Your task to perform on an android device: Open Google Maps and go to "Timeline" Image 0: 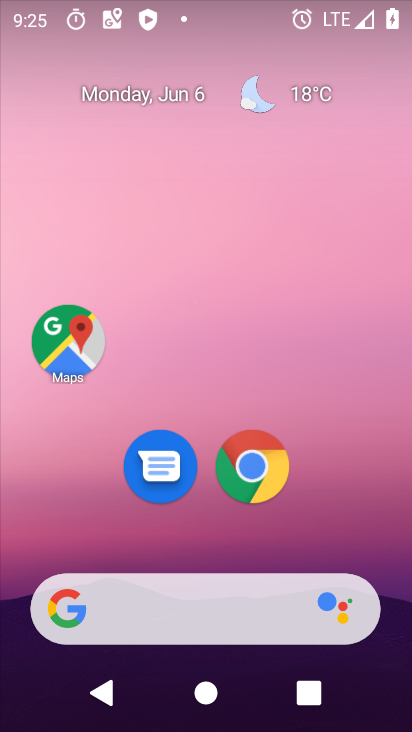
Step 0: drag from (183, 503) to (193, 60)
Your task to perform on an android device: Open Google Maps and go to "Timeline" Image 1: 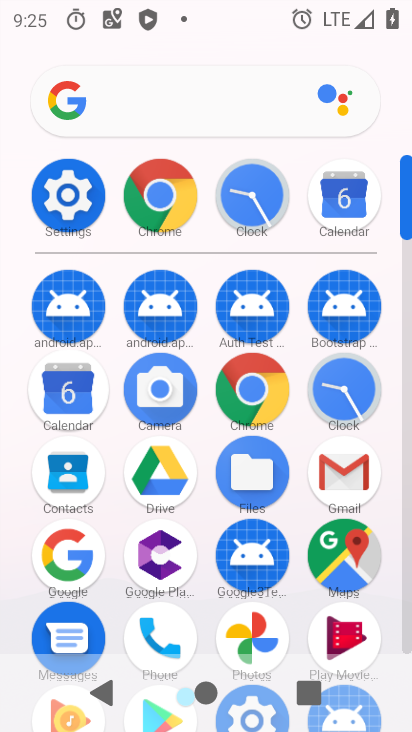
Step 1: click (338, 564)
Your task to perform on an android device: Open Google Maps and go to "Timeline" Image 2: 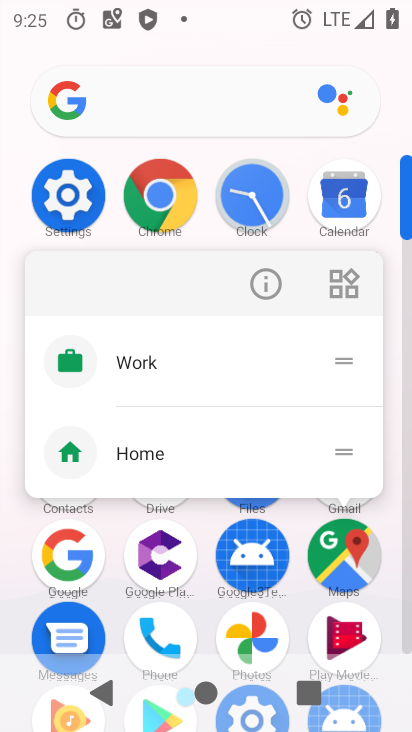
Step 2: click (266, 289)
Your task to perform on an android device: Open Google Maps and go to "Timeline" Image 3: 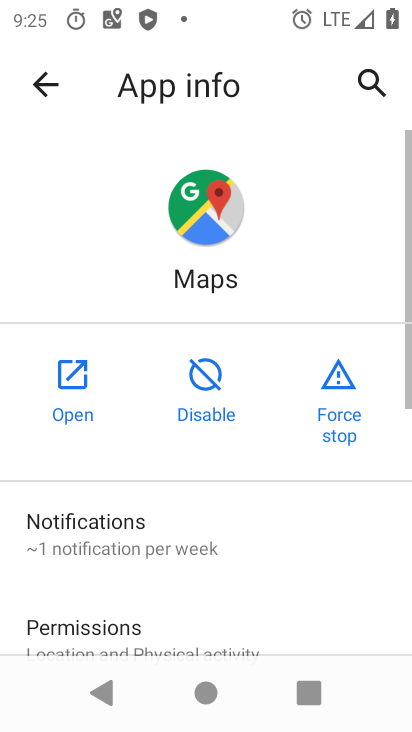
Step 3: click (74, 383)
Your task to perform on an android device: Open Google Maps and go to "Timeline" Image 4: 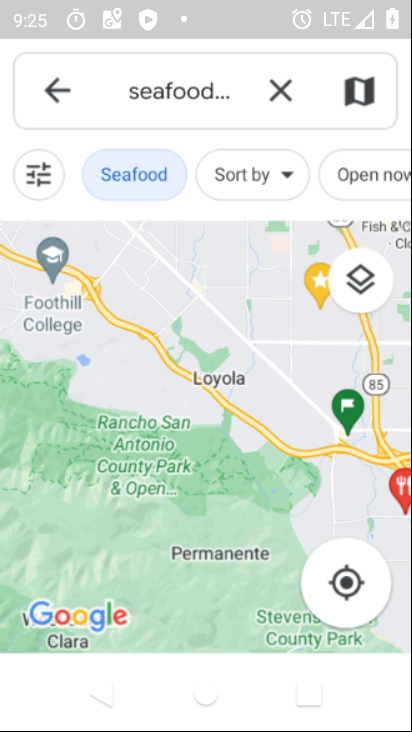
Step 4: drag from (227, 565) to (227, 224)
Your task to perform on an android device: Open Google Maps and go to "Timeline" Image 5: 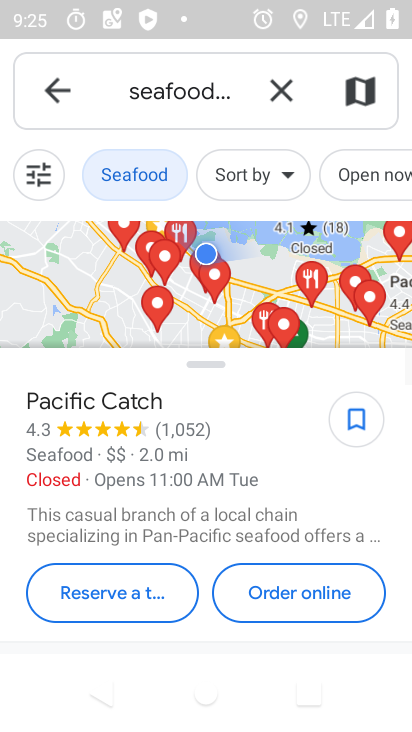
Step 5: drag from (221, 524) to (254, 179)
Your task to perform on an android device: Open Google Maps and go to "Timeline" Image 6: 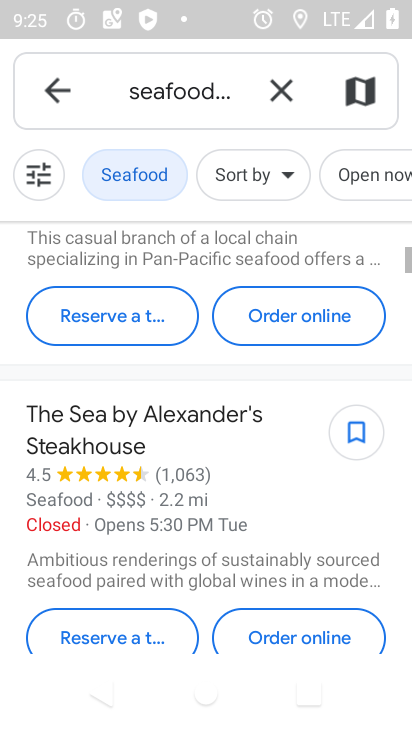
Step 6: drag from (217, 483) to (217, 208)
Your task to perform on an android device: Open Google Maps and go to "Timeline" Image 7: 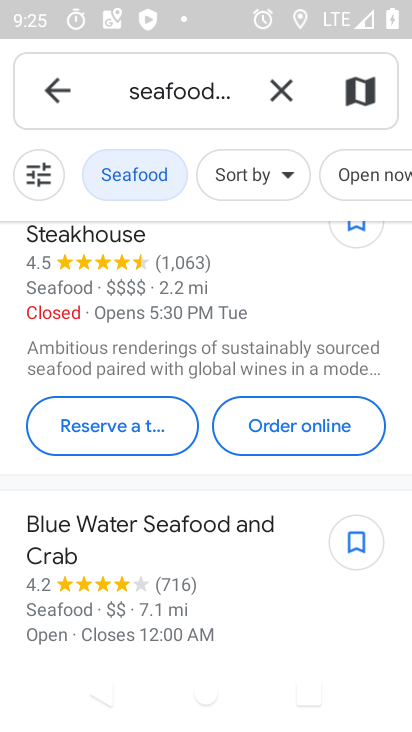
Step 7: drag from (221, 640) to (280, 294)
Your task to perform on an android device: Open Google Maps and go to "Timeline" Image 8: 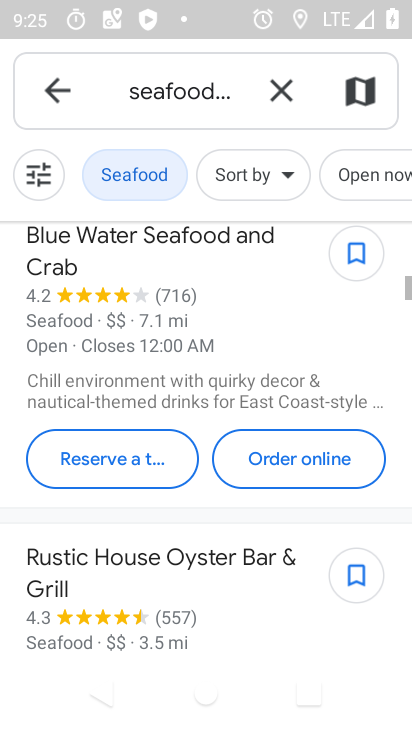
Step 8: click (280, 85)
Your task to perform on an android device: Open Google Maps and go to "Timeline" Image 9: 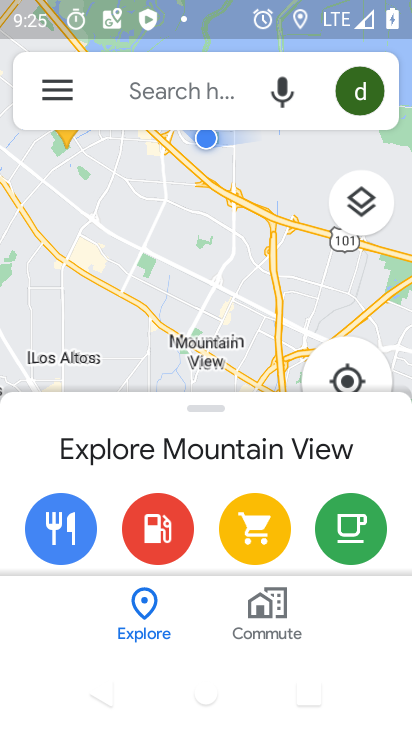
Step 9: click (43, 89)
Your task to perform on an android device: Open Google Maps and go to "Timeline" Image 10: 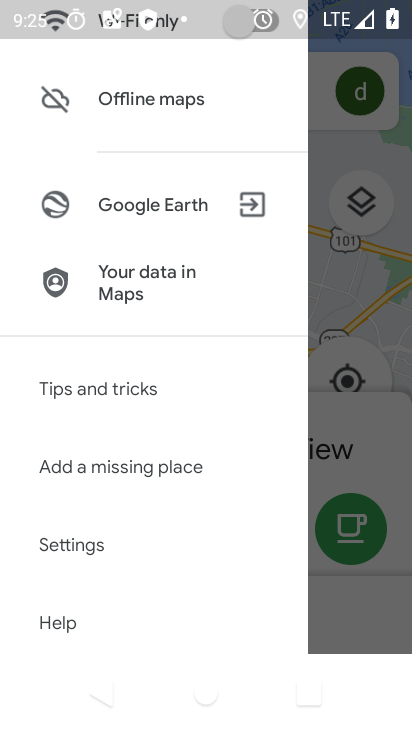
Step 10: drag from (140, 246) to (190, 725)
Your task to perform on an android device: Open Google Maps and go to "Timeline" Image 11: 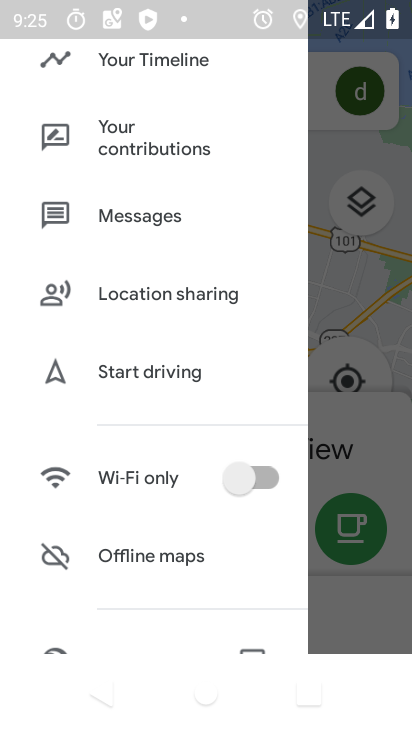
Step 11: drag from (178, 168) to (218, 720)
Your task to perform on an android device: Open Google Maps and go to "Timeline" Image 12: 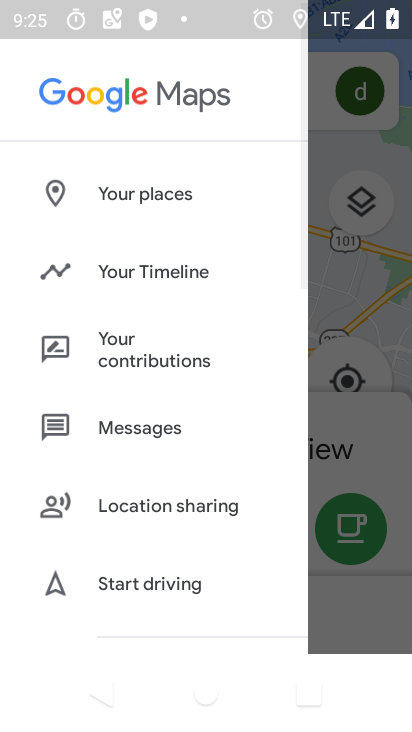
Step 12: click (77, 263)
Your task to perform on an android device: Open Google Maps and go to "Timeline" Image 13: 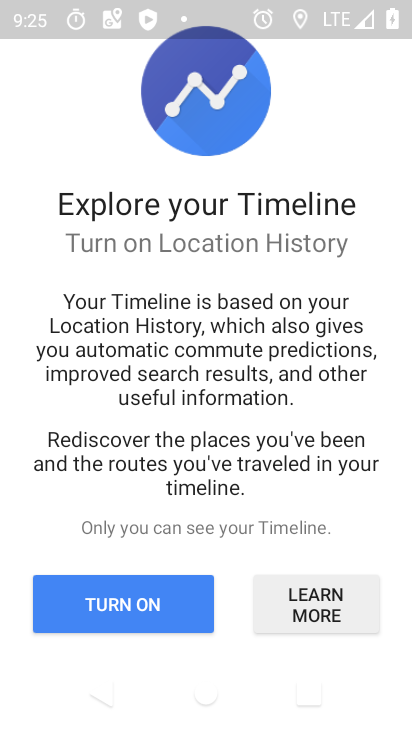
Step 13: click (122, 630)
Your task to perform on an android device: Open Google Maps and go to "Timeline" Image 14: 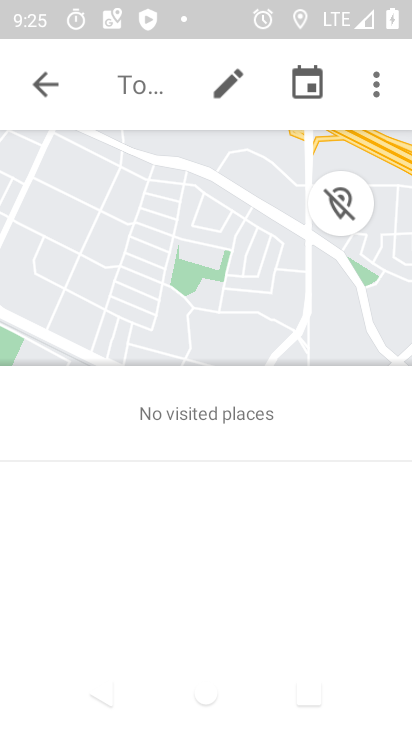
Step 14: task complete